Your task to perform on an android device: Open CNN.com Image 0: 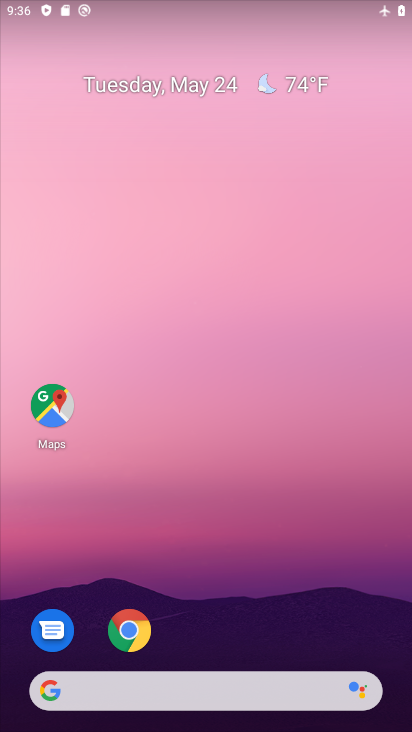
Step 0: click (124, 645)
Your task to perform on an android device: Open CNN.com Image 1: 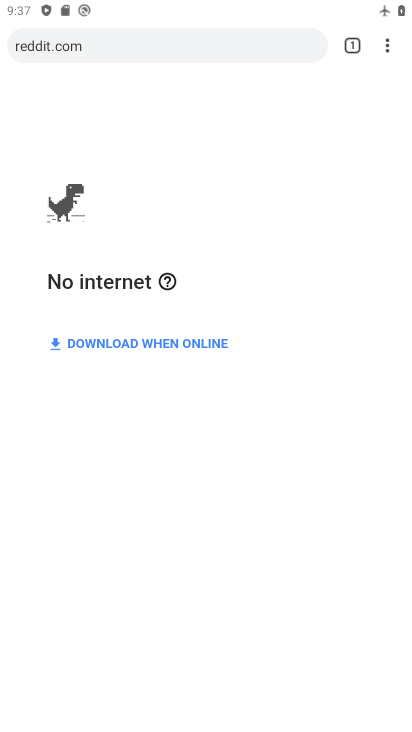
Step 1: click (247, 34)
Your task to perform on an android device: Open CNN.com Image 2: 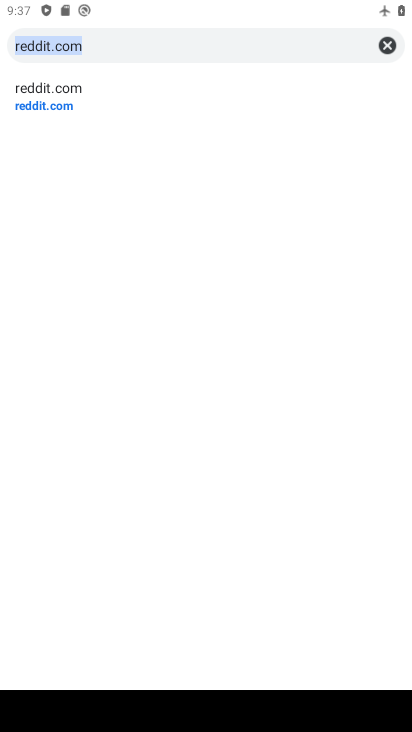
Step 2: drag from (370, 0) to (381, 566)
Your task to perform on an android device: Open CNN.com Image 3: 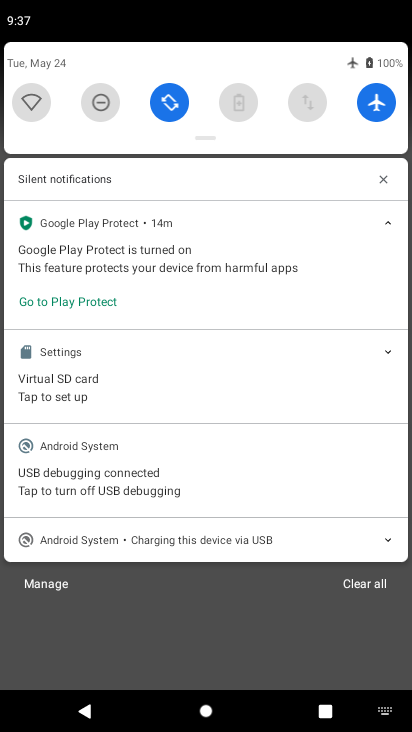
Step 3: click (378, 104)
Your task to perform on an android device: Open CNN.com Image 4: 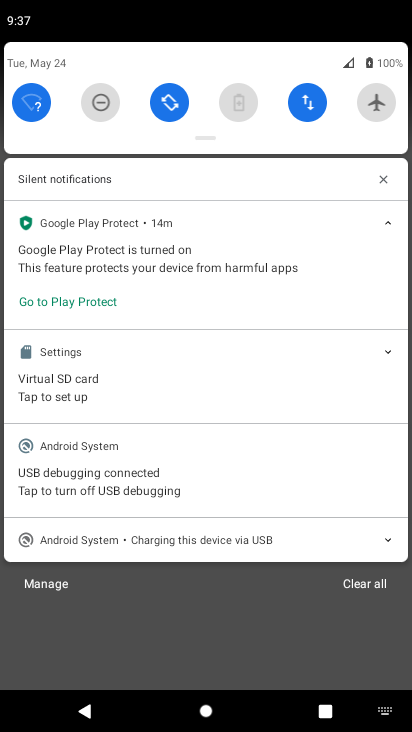
Step 4: click (212, 617)
Your task to perform on an android device: Open CNN.com Image 5: 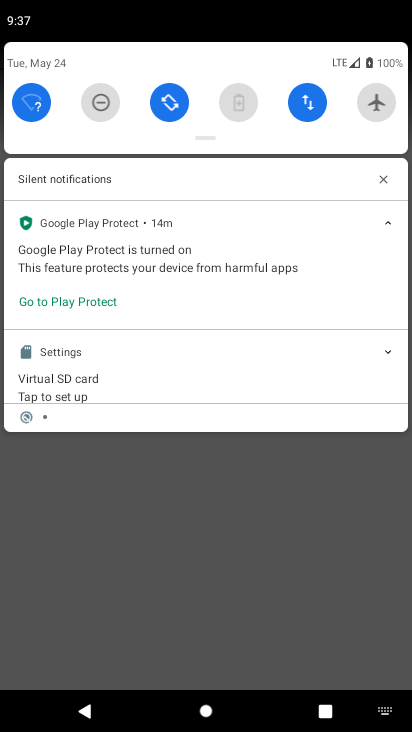
Step 5: drag from (212, 616) to (259, 104)
Your task to perform on an android device: Open CNN.com Image 6: 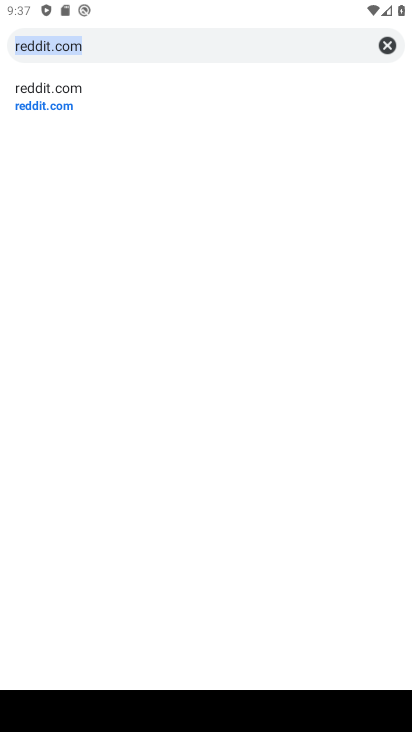
Step 6: type "cnn.com"
Your task to perform on an android device: Open CNN.com Image 7: 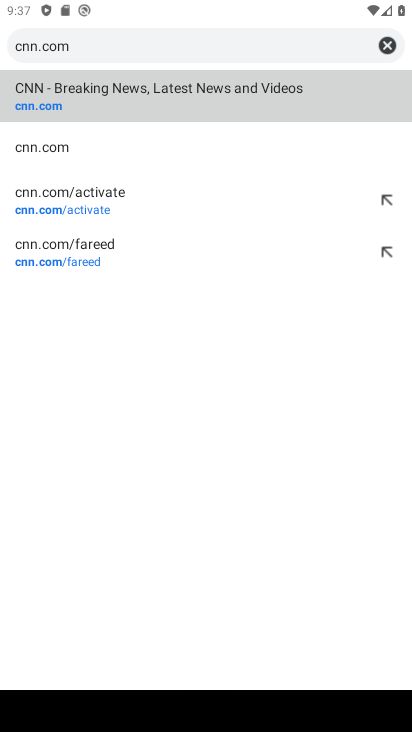
Step 7: click (215, 90)
Your task to perform on an android device: Open CNN.com Image 8: 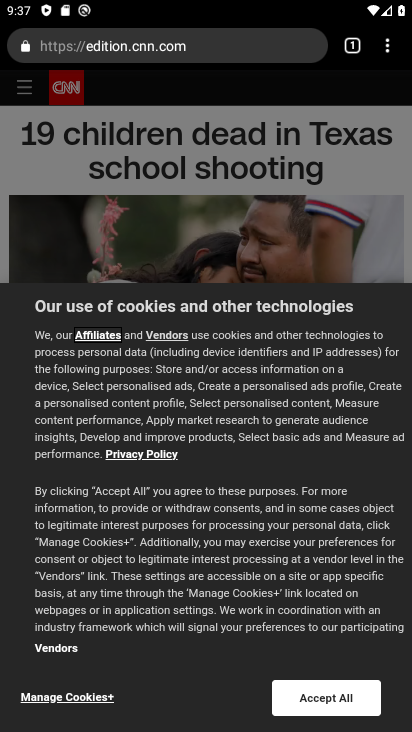
Step 8: task complete